Your task to perform on an android device: turn pop-ups off in chrome Image 0: 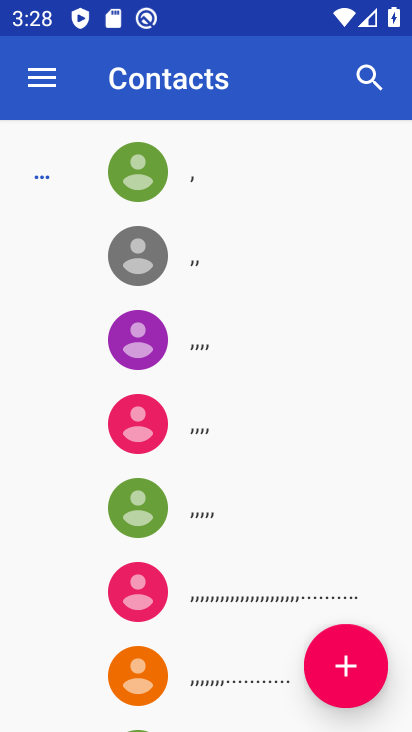
Step 0: press home button
Your task to perform on an android device: turn pop-ups off in chrome Image 1: 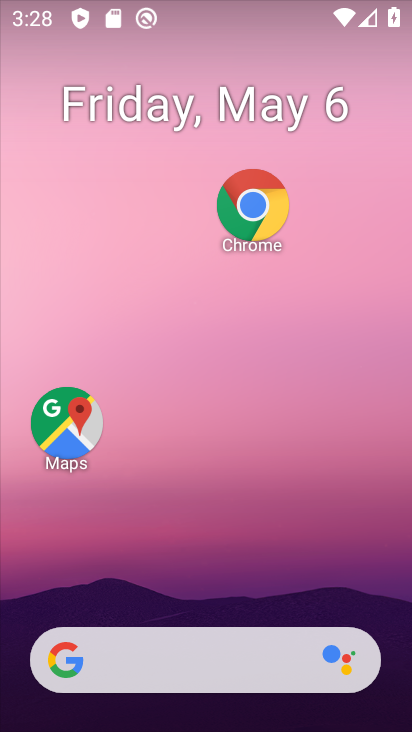
Step 1: drag from (202, 617) to (143, 39)
Your task to perform on an android device: turn pop-ups off in chrome Image 2: 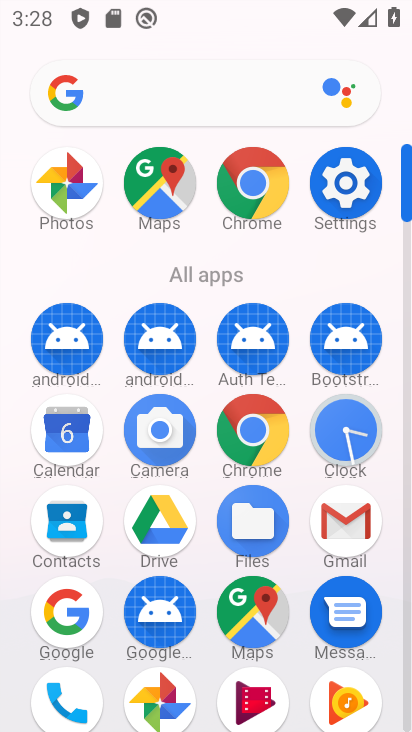
Step 2: click (251, 184)
Your task to perform on an android device: turn pop-ups off in chrome Image 3: 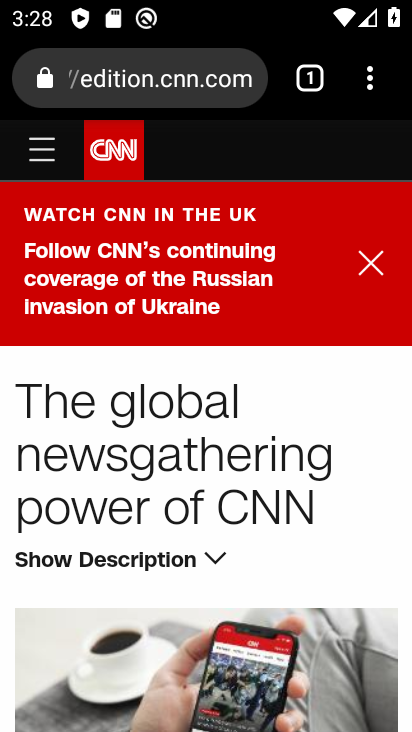
Step 3: click (363, 84)
Your task to perform on an android device: turn pop-ups off in chrome Image 4: 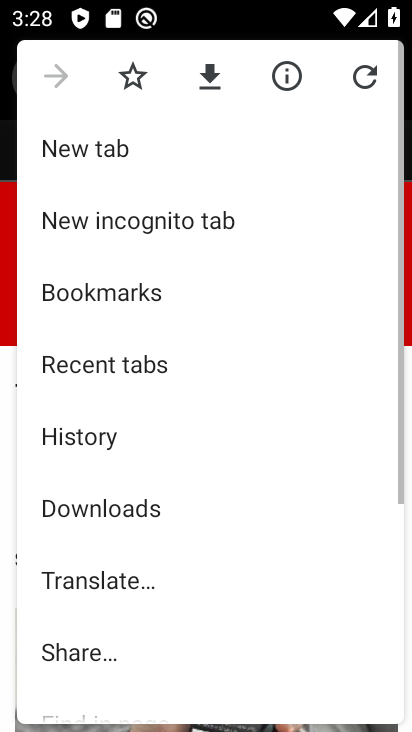
Step 4: drag from (250, 576) to (238, 155)
Your task to perform on an android device: turn pop-ups off in chrome Image 5: 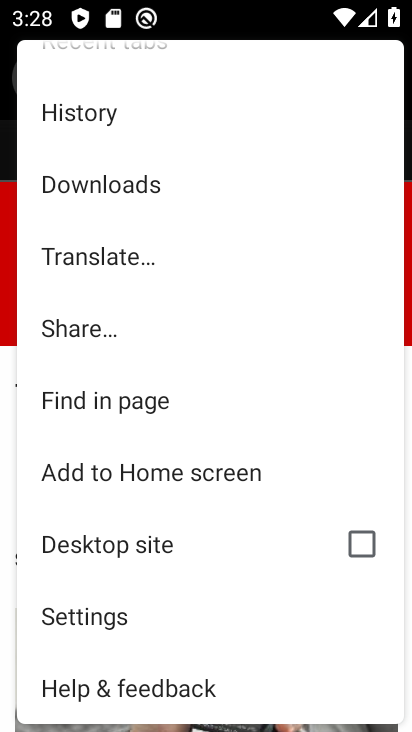
Step 5: click (76, 618)
Your task to perform on an android device: turn pop-ups off in chrome Image 6: 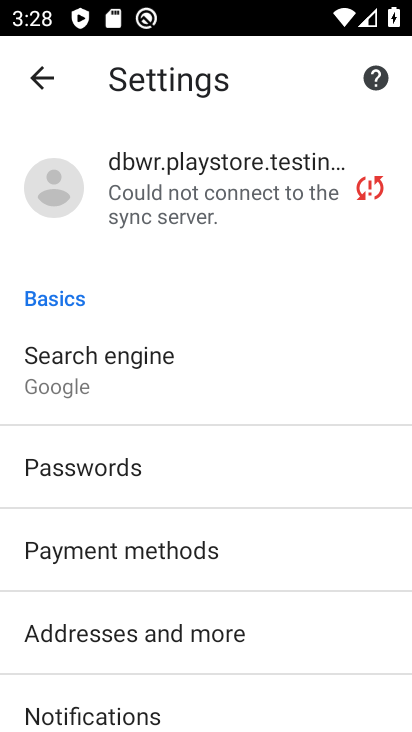
Step 6: drag from (185, 692) to (162, 159)
Your task to perform on an android device: turn pop-ups off in chrome Image 7: 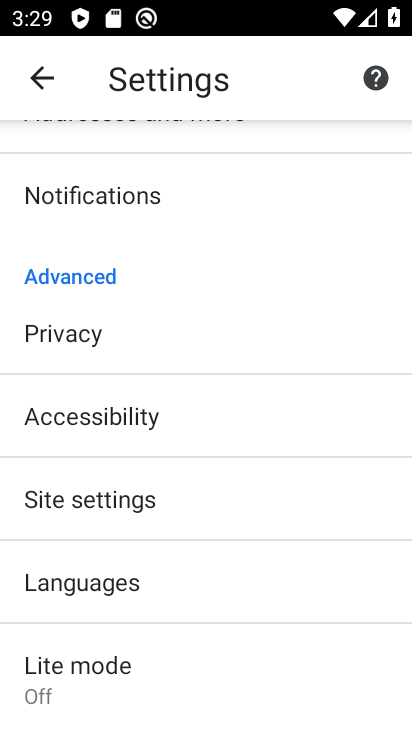
Step 7: drag from (210, 542) to (182, 198)
Your task to perform on an android device: turn pop-ups off in chrome Image 8: 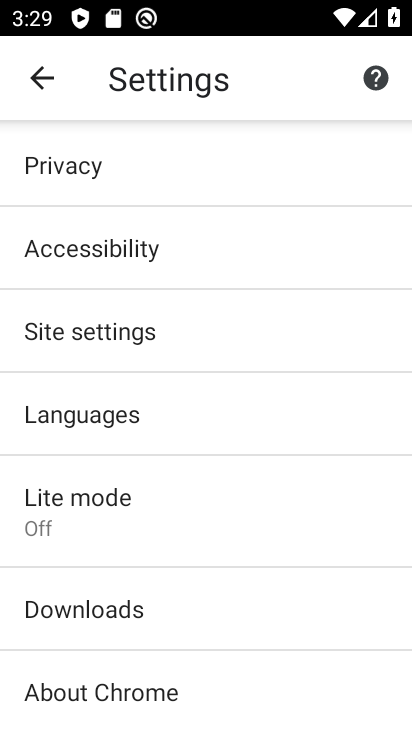
Step 8: click (118, 339)
Your task to perform on an android device: turn pop-ups off in chrome Image 9: 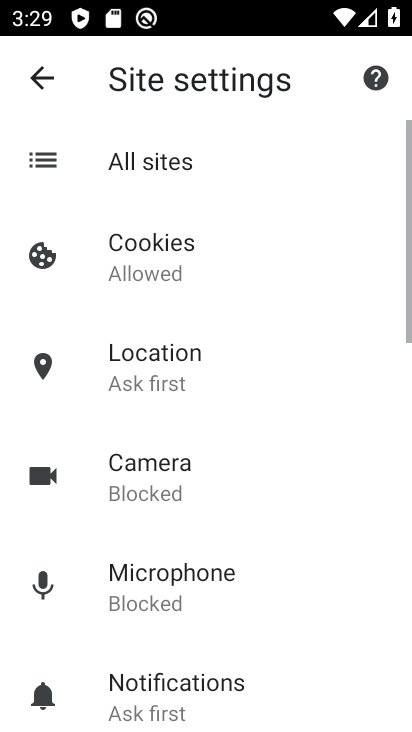
Step 9: drag from (163, 553) to (147, 340)
Your task to perform on an android device: turn pop-ups off in chrome Image 10: 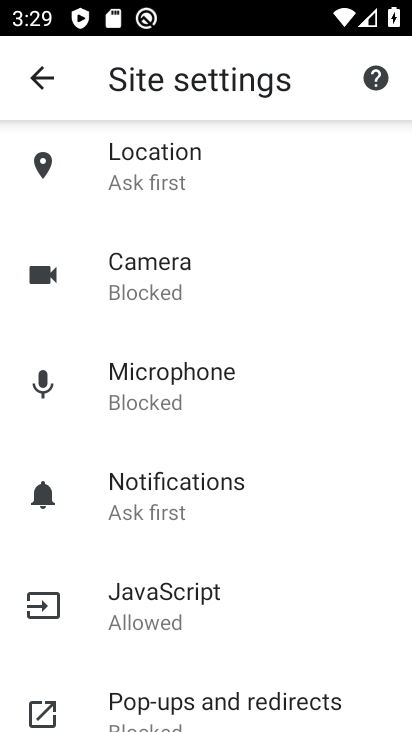
Step 10: drag from (210, 481) to (177, 210)
Your task to perform on an android device: turn pop-ups off in chrome Image 11: 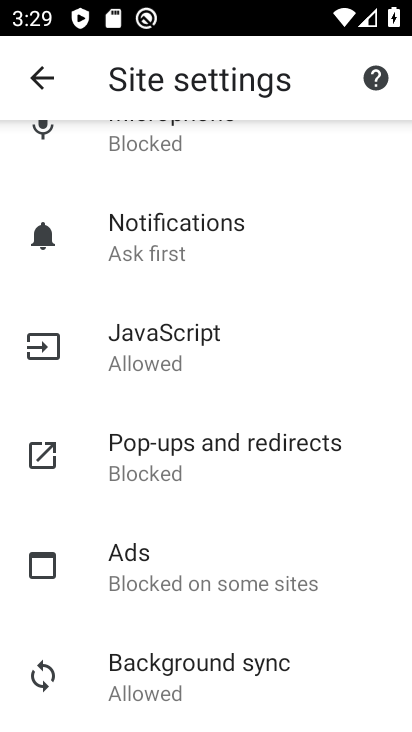
Step 11: click (190, 472)
Your task to perform on an android device: turn pop-ups off in chrome Image 12: 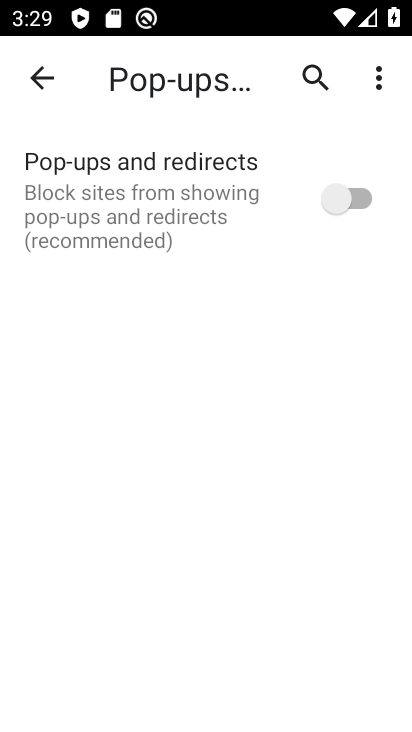
Step 12: task complete